Your task to perform on an android device: Open calendar and show me the third week of next month Image 0: 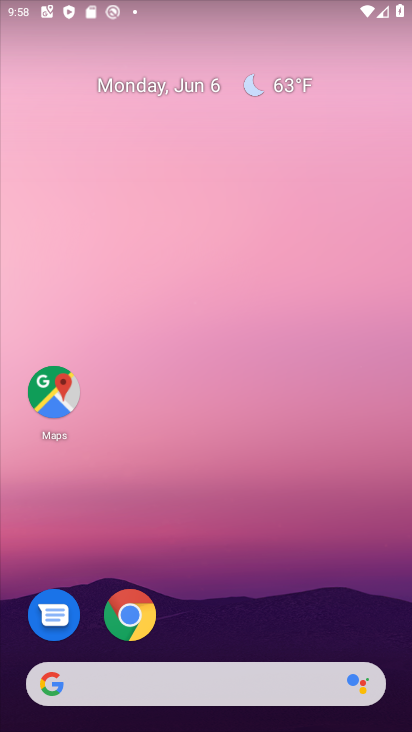
Step 0: press home button
Your task to perform on an android device: Open calendar and show me the third week of next month Image 1: 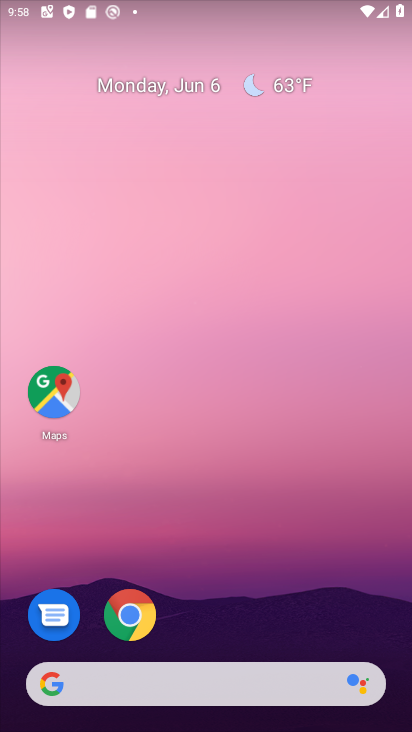
Step 1: drag from (209, 622) to (229, 116)
Your task to perform on an android device: Open calendar and show me the third week of next month Image 2: 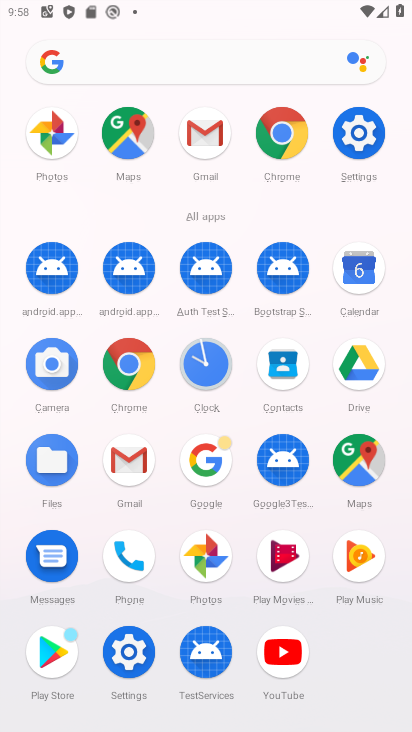
Step 2: click (354, 267)
Your task to perform on an android device: Open calendar and show me the third week of next month Image 3: 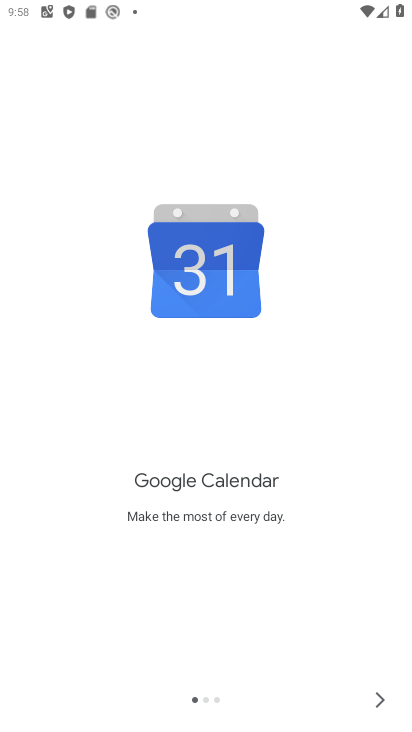
Step 3: click (378, 700)
Your task to perform on an android device: Open calendar and show me the third week of next month Image 4: 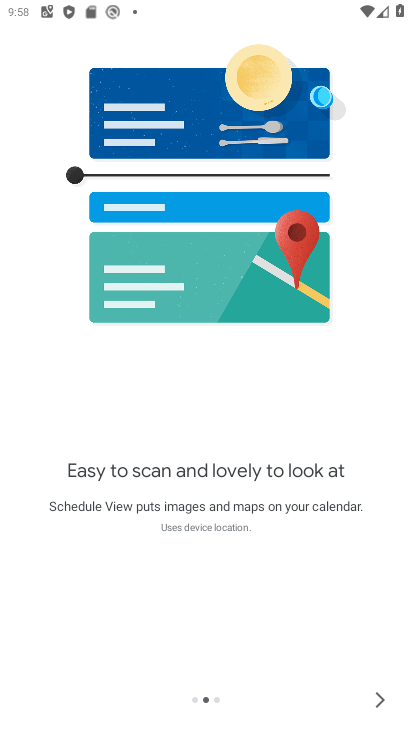
Step 4: click (371, 693)
Your task to perform on an android device: Open calendar and show me the third week of next month Image 5: 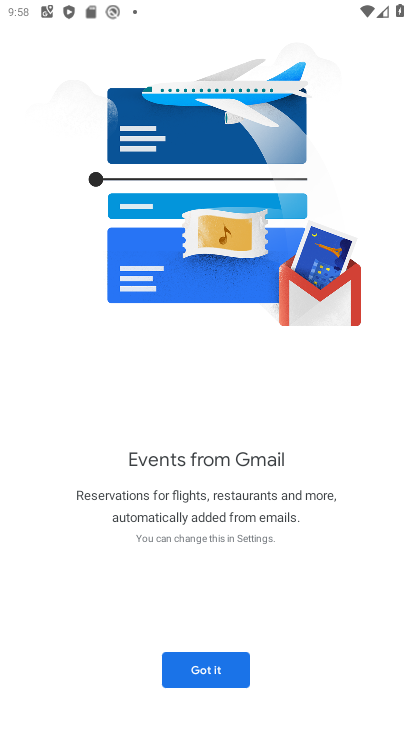
Step 5: click (206, 663)
Your task to perform on an android device: Open calendar and show me the third week of next month Image 6: 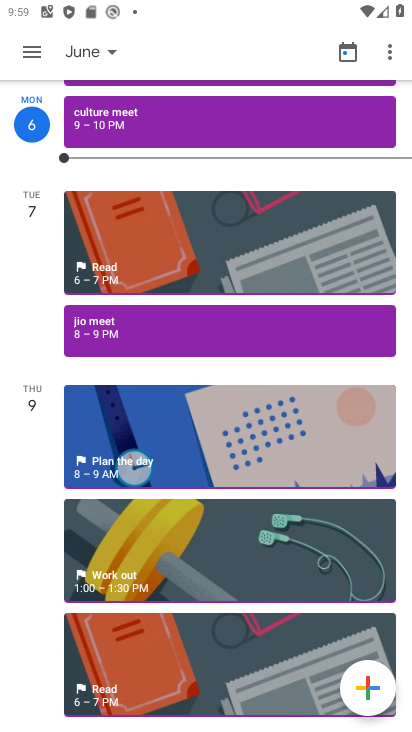
Step 6: click (112, 49)
Your task to perform on an android device: Open calendar and show me the third week of next month Image 7: 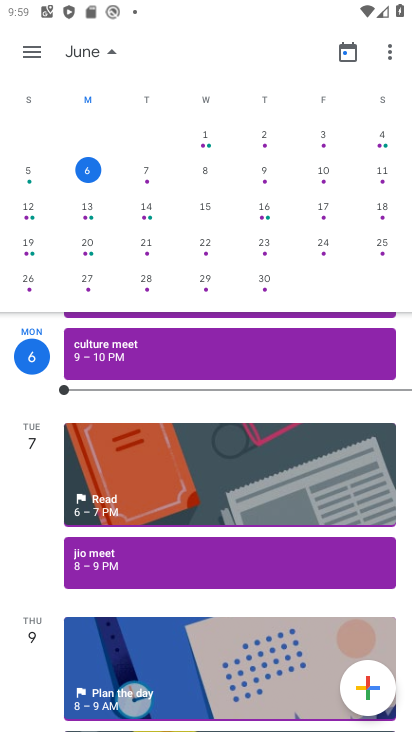
Step 7: drag from (357, 199) to (25, 199)
Your task to perform on an android device: Open calendar and show me the third week of next month Image 8: 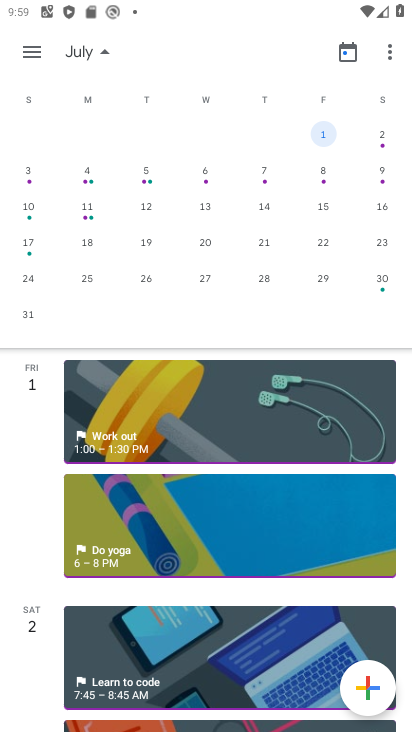
Step 8: click (27, 238)
Your task to perform on an android device: Open calendar and show me the third week of next month Image 9: 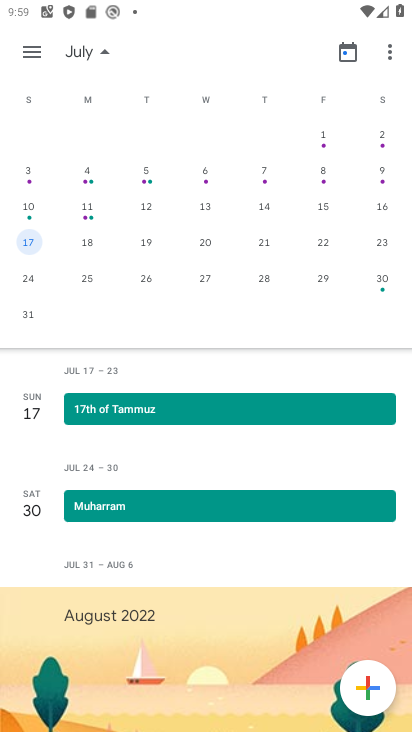
Step 9: click (105, 35)
Your task to perform on an android device: Open calendar and show me the third week of next month Image 10: 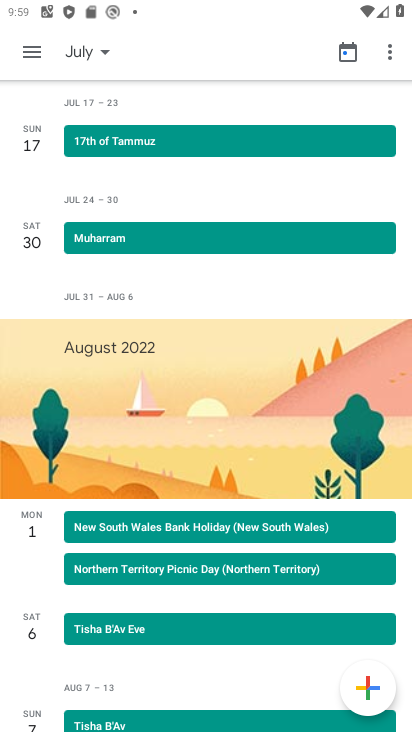
Step 10: task complete